Your task to perform on an android device: turn on airplane mode Image 0: 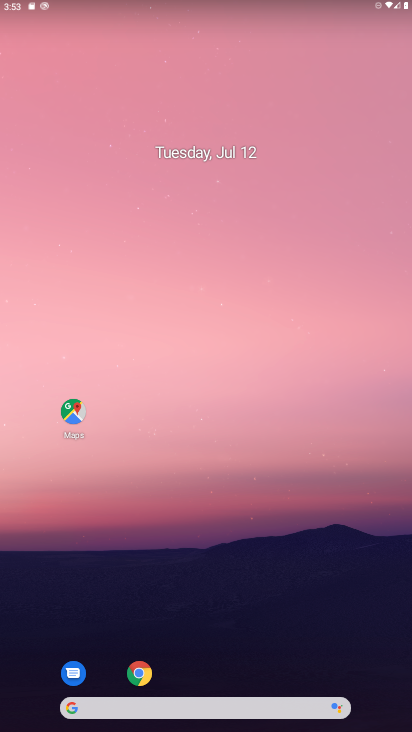
Step 0: drag from (208, 698) to (260, 181)
Your task to perform on an android device: turn on airplane mode Image 1: 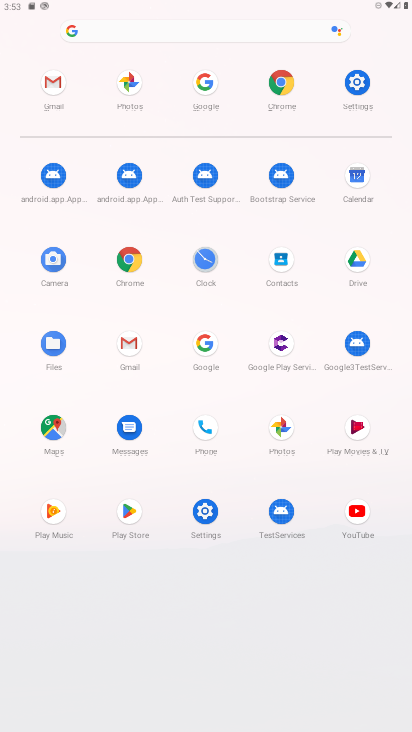
Step 1: click (356, 83)
Your task to perform on an android device: turn on airplane mode Image 2: 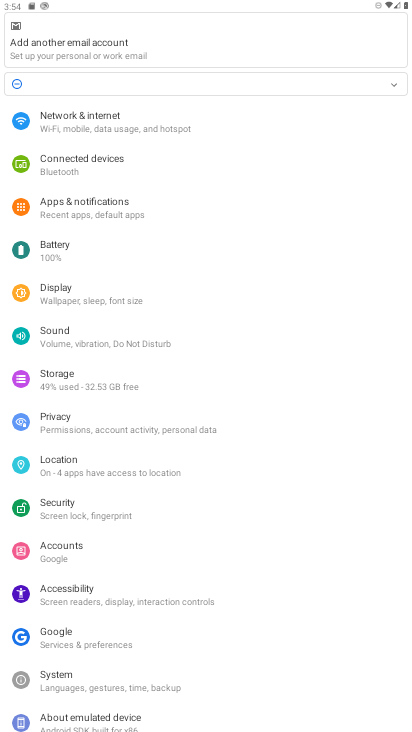
Step 2: click (165, 120)
Your task to perform on an android device: turn on airplane mode Image 3: 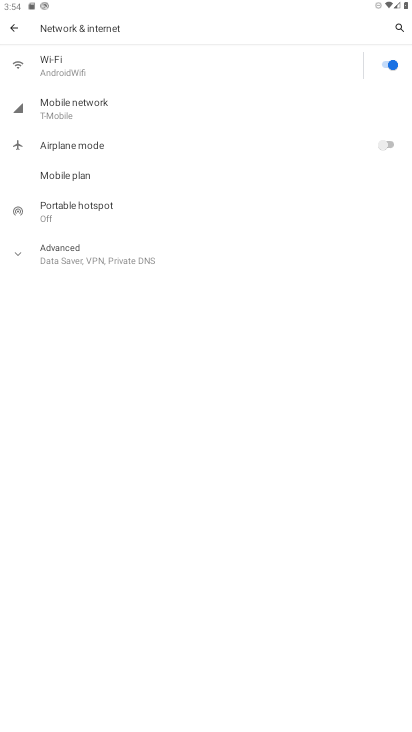
Step 3: click (382, 147)
Your task to perform on an android device: turn on airplane mode Image 4: 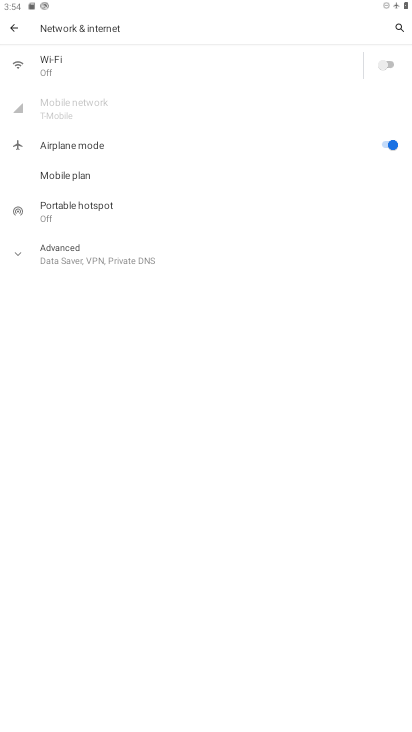
Step 4: task complete